Your task to perform on an android device: turn off data saver in the chrome app Image 0: 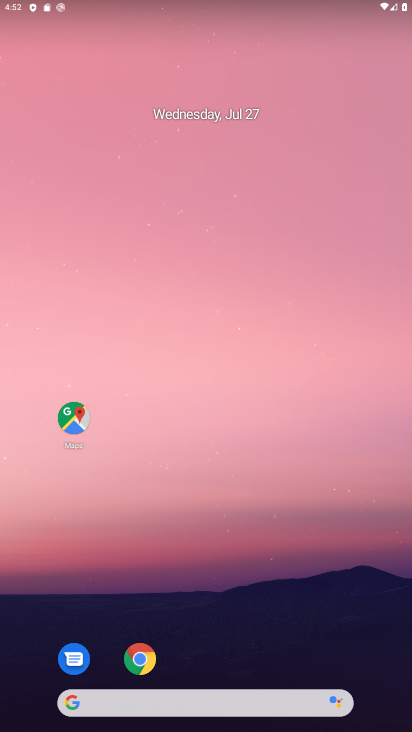
Step 0: drag from (224, 656) to (286, 198)
Your task to perform on an android device: turn off data saver in the chrome app Image 1: 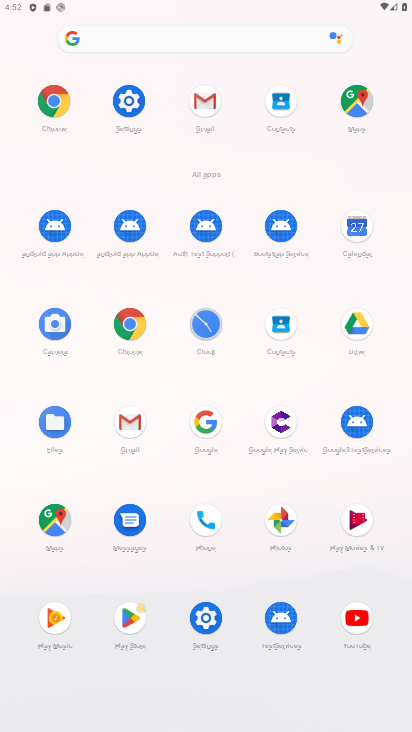
Step 1: click (138, 323)
Your task to perform on an android device: turn off data saver in the chrome app Image 2: 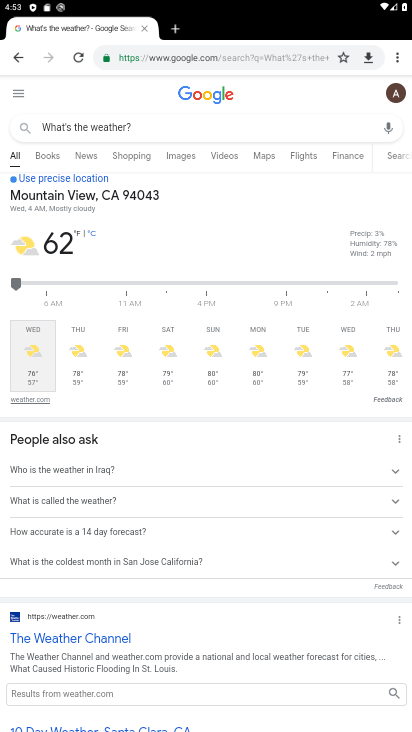
Step 2: drag from (399, 60) to (266, 342)
Your task to perform on an android device: turn off data saver in the chrome app Image 3: 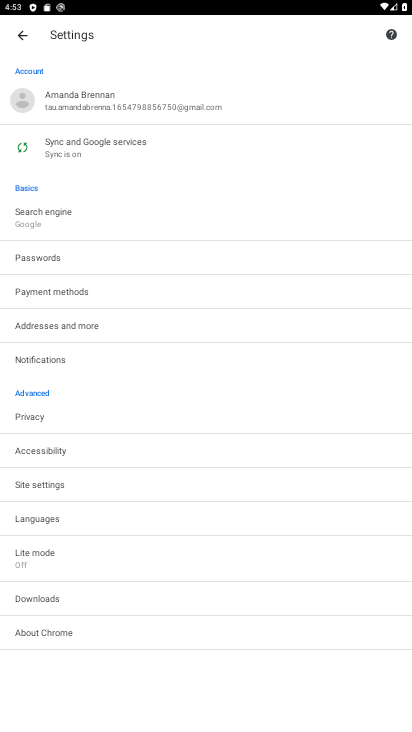
Step 3: click (32, 553)
Your task to perform on an android device: turn off data saver in the chrome app Image 4: 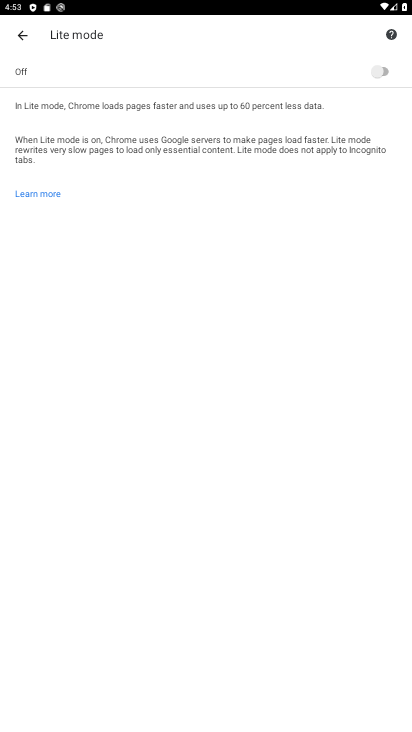
Step 4: task complete